Your task to perform on an android device: toggle pop-ups in chrome Image 0: 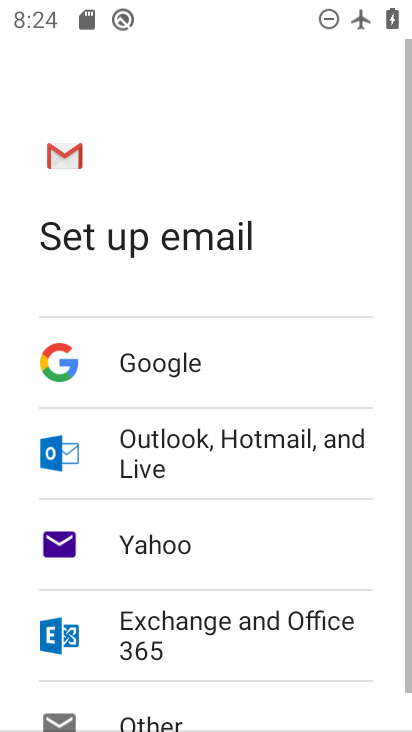
Step 0: press back button
Your task to perform on an android device: toggle pop-ups in chrome Image 1: 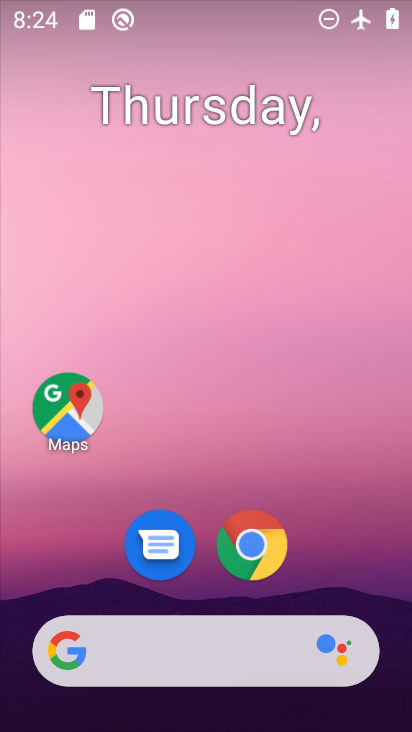
Step 1: click (248, 546)
Your task to perform on an android device: toggle pop-ups in chrome Image 2: 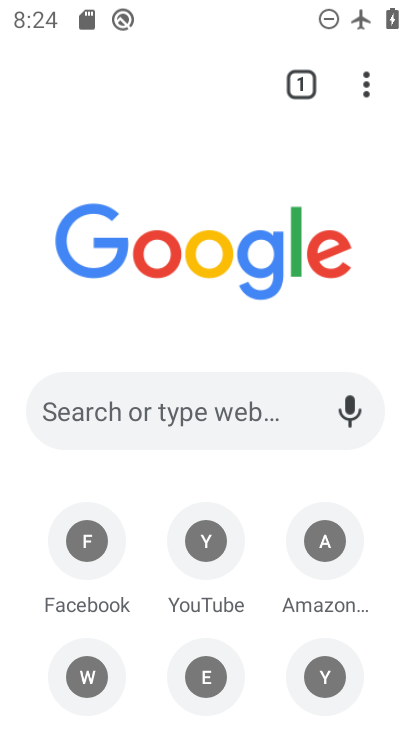
Step 2: click (373, 83)
Your task to perform on an android device: toggle pop-ups in chrome Image 3: 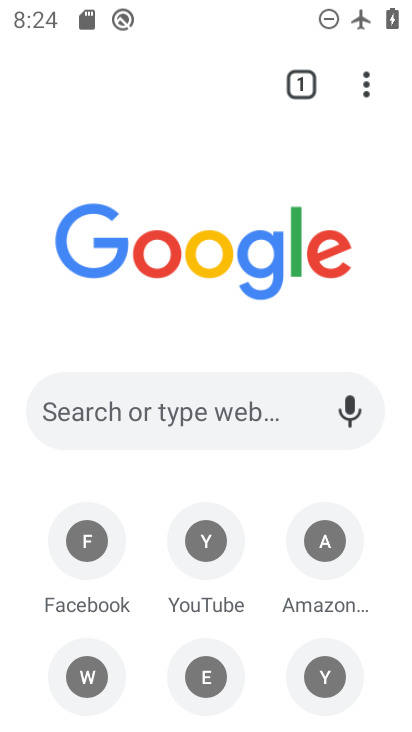
Step 3: click (365, 80)
Your task to perform on an android device: toggle pop-ups in chrome Image 4: 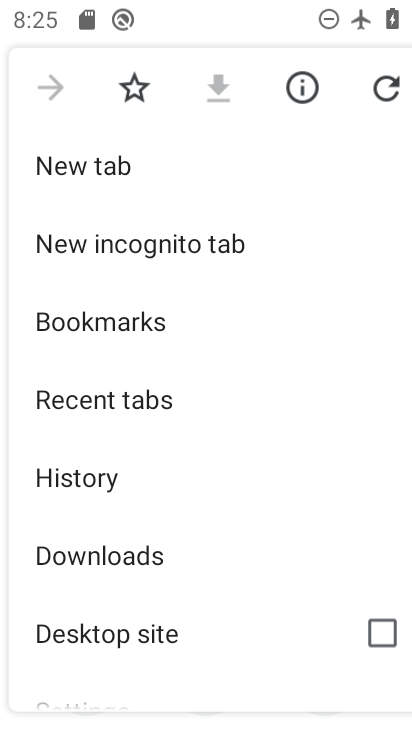
Step 4: drag from (202, 461) to (257, 368)
Your task to perform on an android device: toggle pop-ups in chrome Image 5: 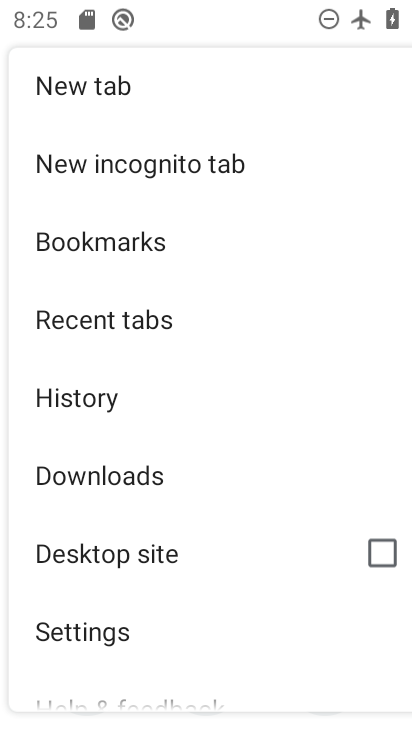
Step 5: drag from (131, 605) to (190, 486)
Your task to perform on an android device: toggle pop-ups in chrome Image 6: 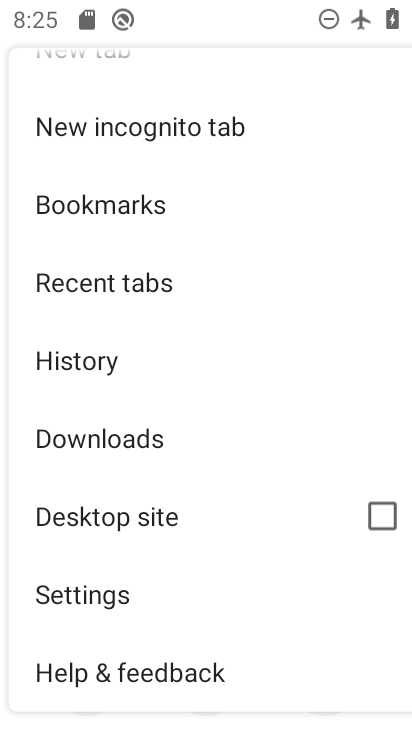
Step 6: click (88, 591)
Your task to perform on an android device: toggle pop-ups in chrome Image 7: 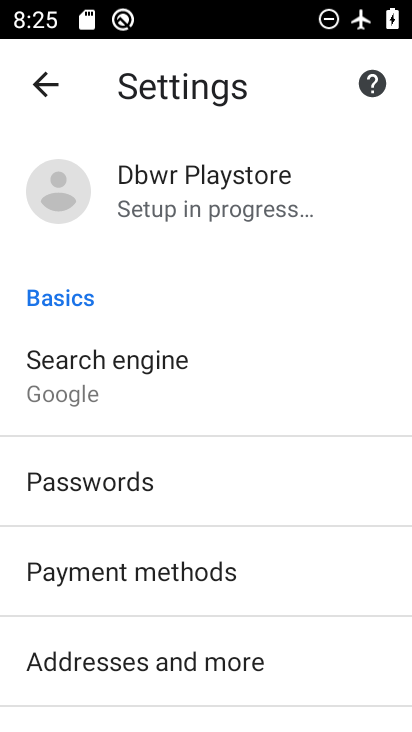
Step 7: drag from (182, 543) to (213, 457)
Your task to perform on an android device: toggle pop-ups in chrome Image 8: 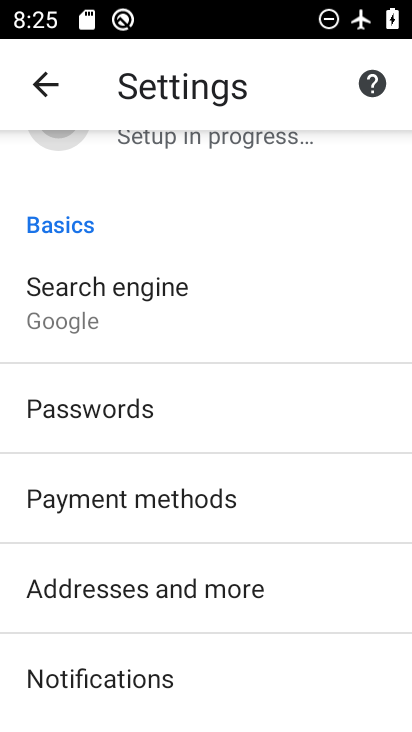
Step 8: drag from (172, 557) to (235, 456)
Your task to perform on an android device: toggle pop-ups in chrome Image 9: 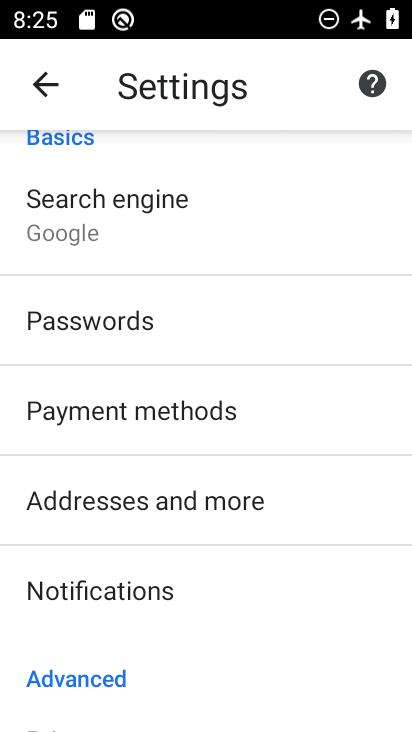
Step 9: drag from (162, 600) to (243, 500)
Your task to perform on an android device: toggle pop-ups in chrome Image 10: 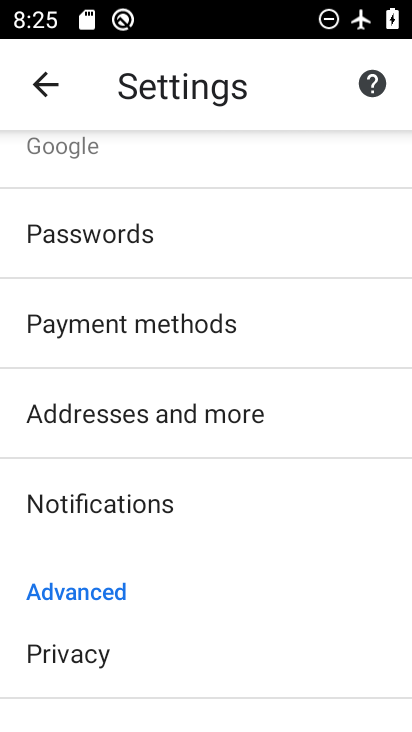
Step 10: drag from (181, 595) to (258, 460)
Your task to perform on an android device: toggle pop-ups in chrome Image 11: 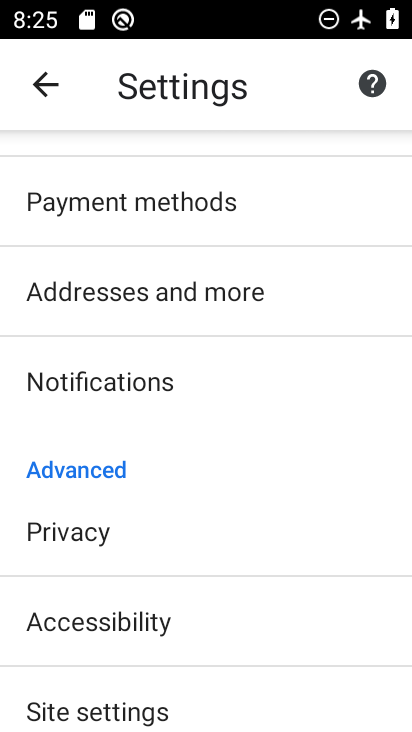
Step 11: drag from (185, 602) to (249, 498)
Your task to perform on an android device: toggle pop-ups in chrome Image 12: 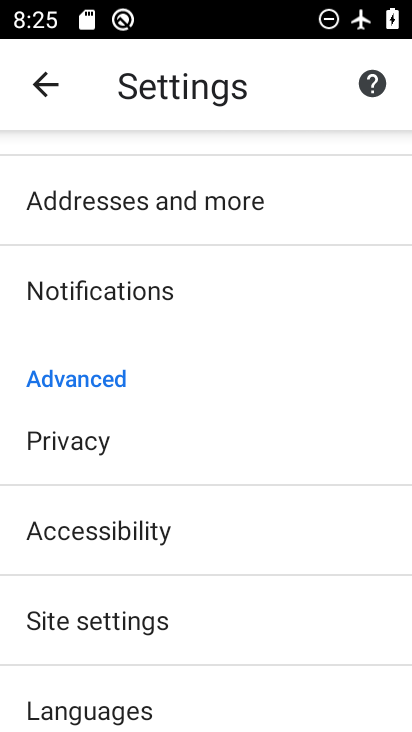
Step 12: drag from (170, 633) to (249, 514)
Your task to perform on an android device: toggle pop-ups in chrome Image 13: 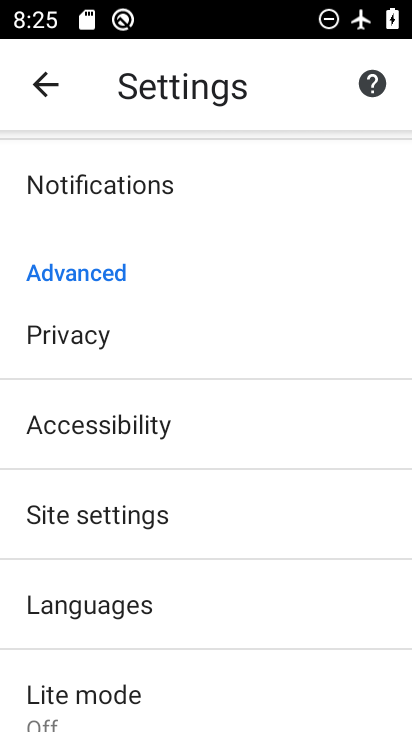
Step 13: click (135, 517)
Your task to perform on an android device: toggle pop-ups in chrome Image 14: 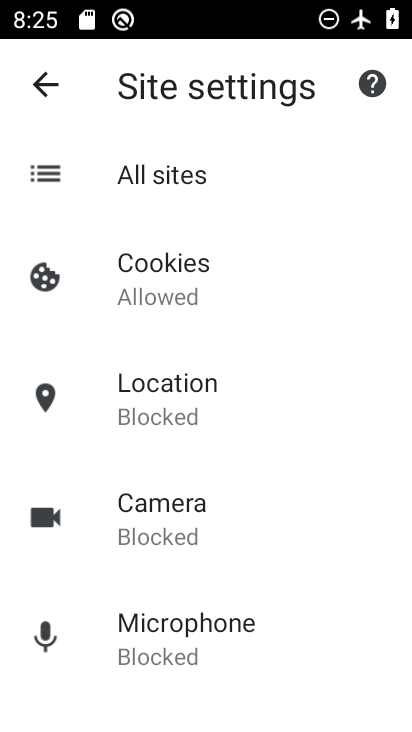
Step 14: drag from (221, 559) to (237, 440)
Your task to perform on an android device: toggle pop-ups in chrome Image 15: 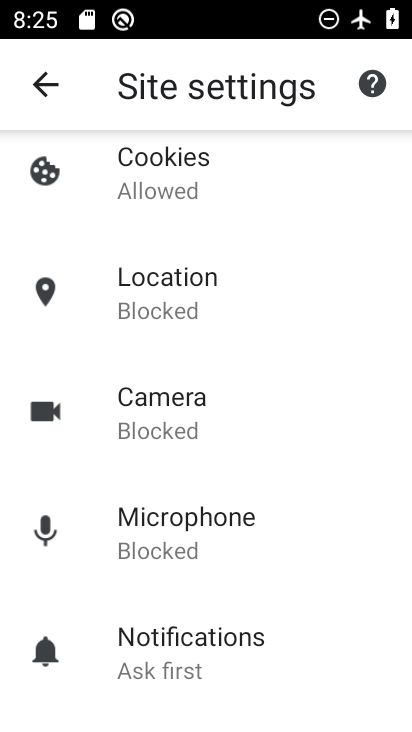
Step 15: drag from (207, 583) to (254, 469)
Your task to perform on an android device: toggle pop-ups in chrome Image 16: 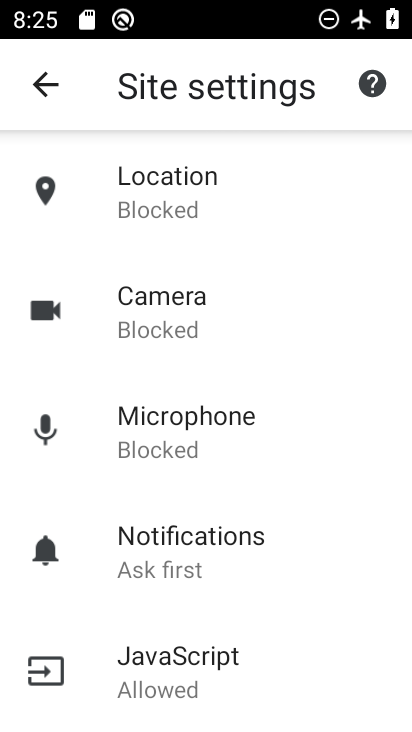
Step 16: drag from (185, 604) to (233, 497)
Your task to perform on an android device: toggle pop-ups in chrome Image 17: 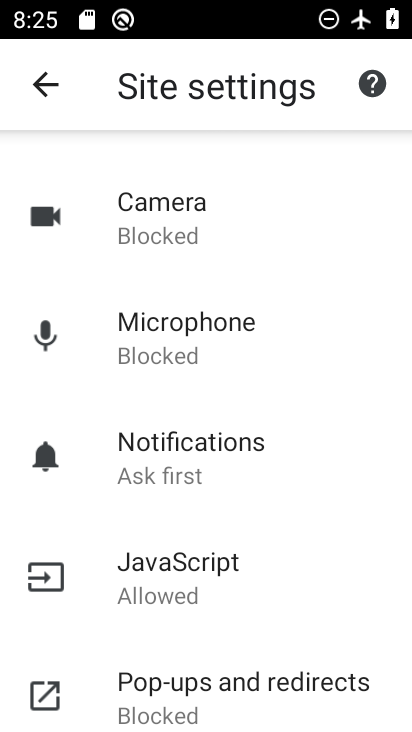
Step 17: drag from (166, 635) to (255, 493)
Your task to perform on an android device: toggle pop-ups in chrome Image 18: 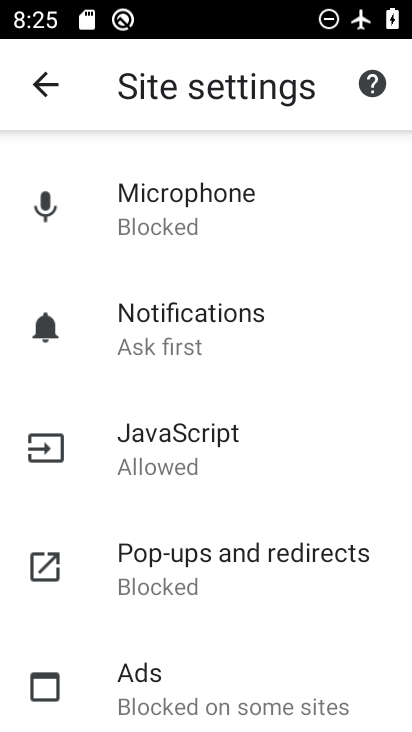
Step 18: click (222, 552)
Your task to perform on an android device: toggle pop-ups in chrome Image 19: 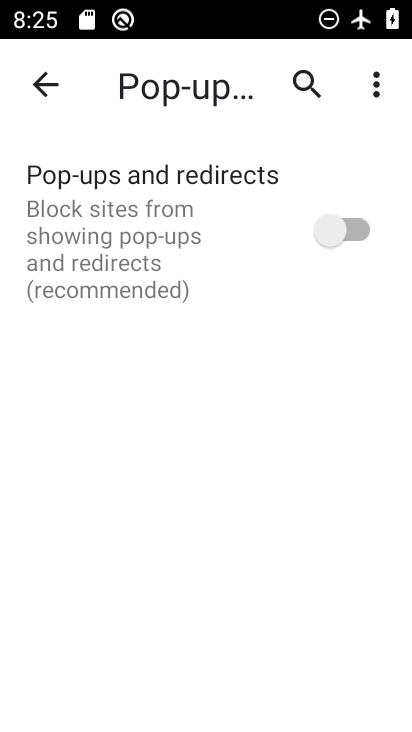
Step 19: click (330, 228)
Your task to perform on an android device: toggle pop-ups in chrome Image 20: 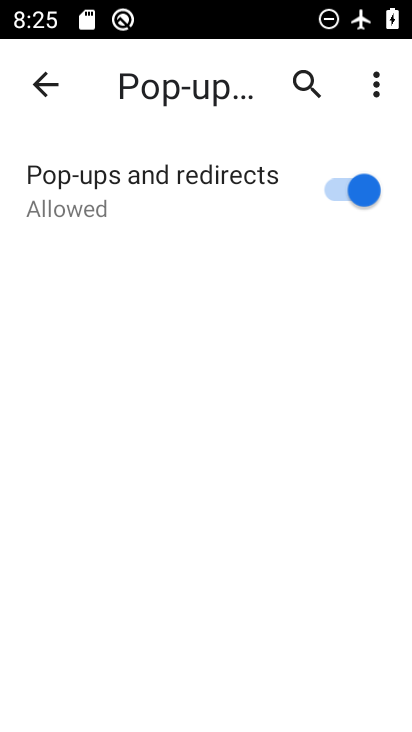
Step 20: task complete